Your task to perform on an android device: open the mobile data screen to see how much data has been used Image 0: 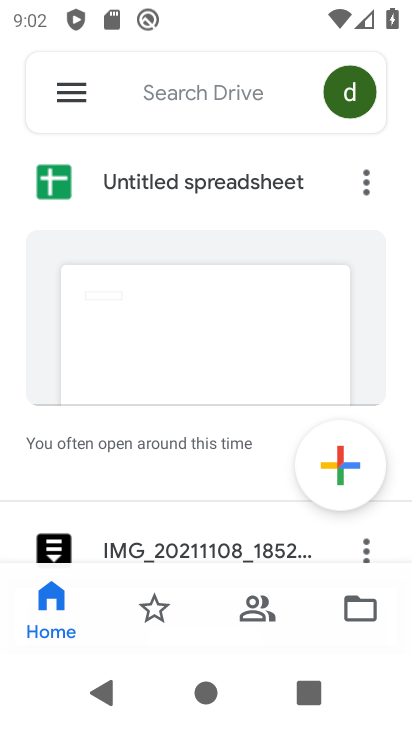
Step 0: press home button
Your task to perform on an android device: open the mobile data screen to see how much data has been used Image 1: 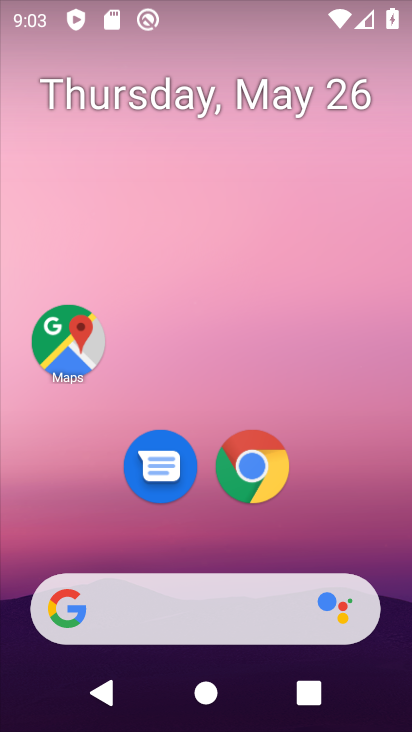
Step 1: drag from (350, 507) to (285, 82)
Your task to perform on an android device: open the mobile data screen to see how much data has been used Image 2: 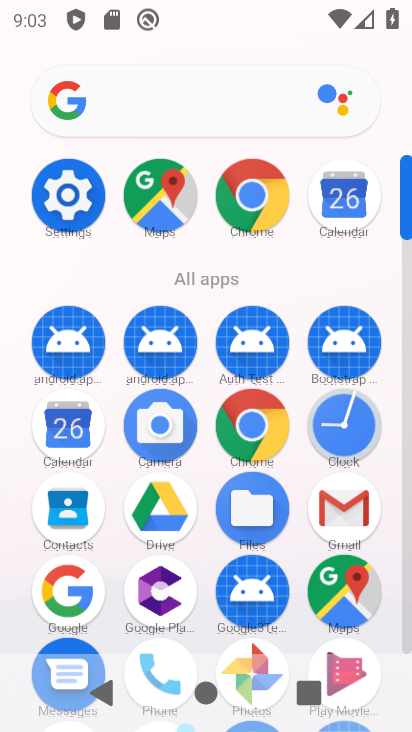
Step 2: click (71, 191)
Your task to perform on an android device: open the mobile data screen to see how much data has been used Image 3: 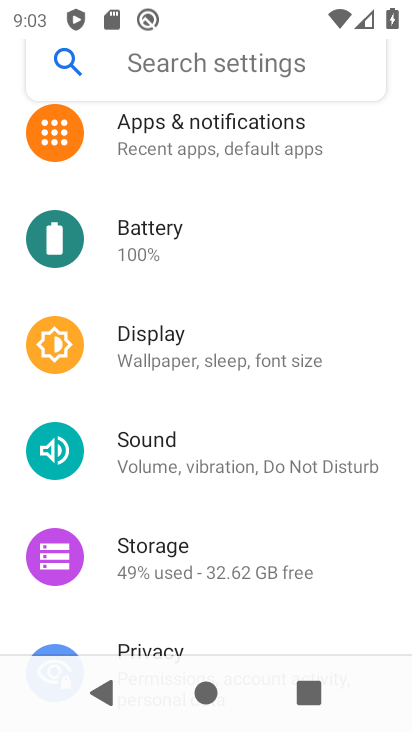
Step 3: drag from (244, 217) to (252, 713)
Your task to perform on an android device: open the mobile data screen to see how much data has been used Image 4: 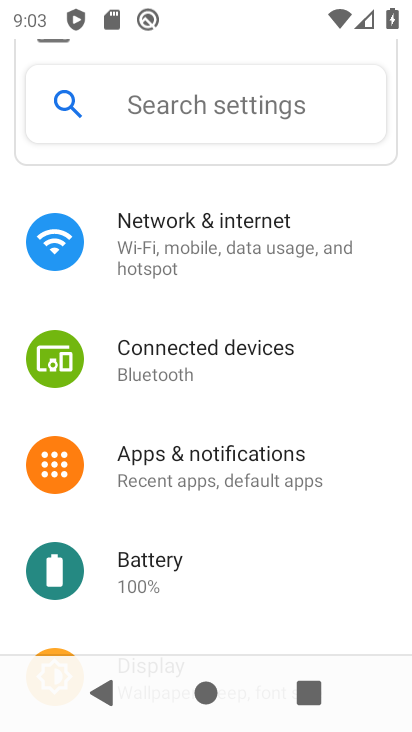
Step 4: click (203, 208)
Your task to perform on an android device: open the mobile data screen to see how much data has been used Image 5: 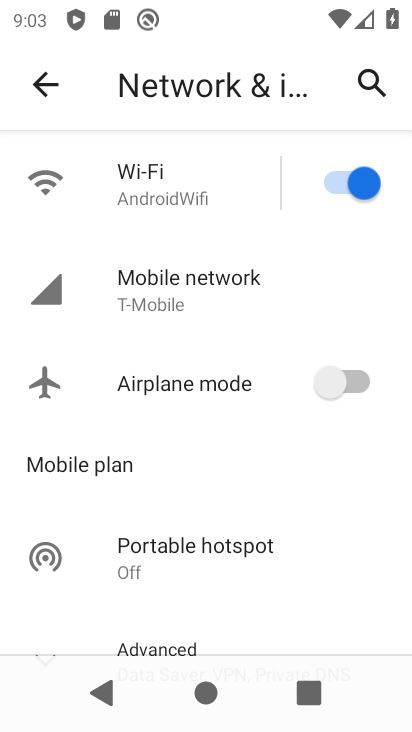
Step 5: click (191, 276)
Your task to perform on an android device: open the mobile data screen to see how much data has been used Image 6: 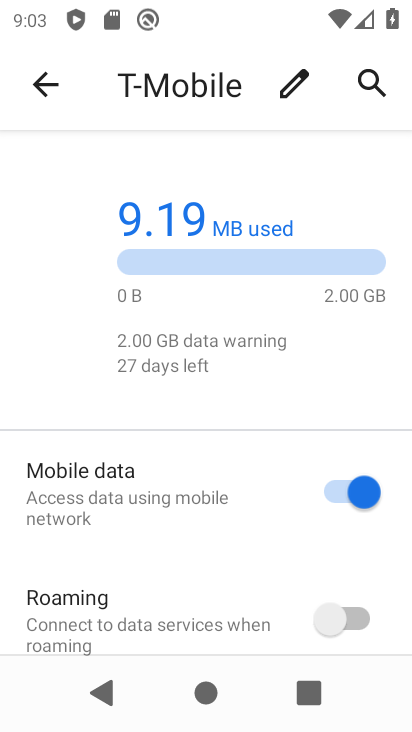
Step 6: task complete